Your task to perform on an android device: Show me the alarms in the clock app Image 0: 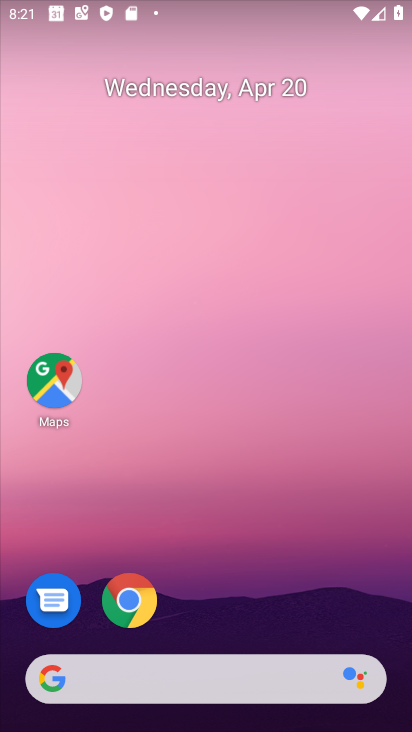
Step 0: drag from (269, 605) to (303, 235)
Your task to perform on an android device: Show me the alarms in the clock app Image 1: 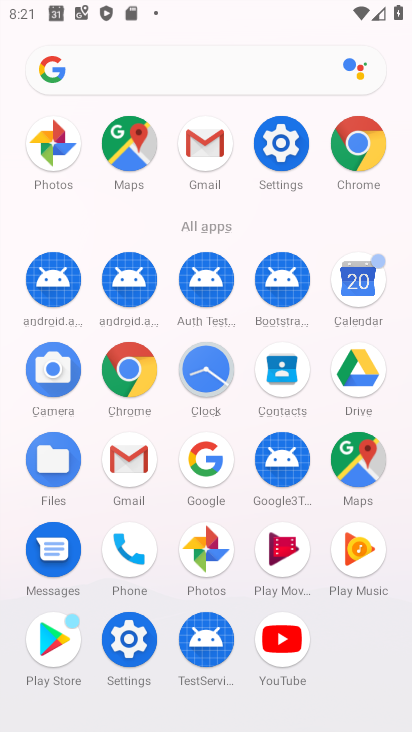
Step 1: click (205, 380)
Your task to perform on an android device: Show me the alarms in the clock app Image 2: 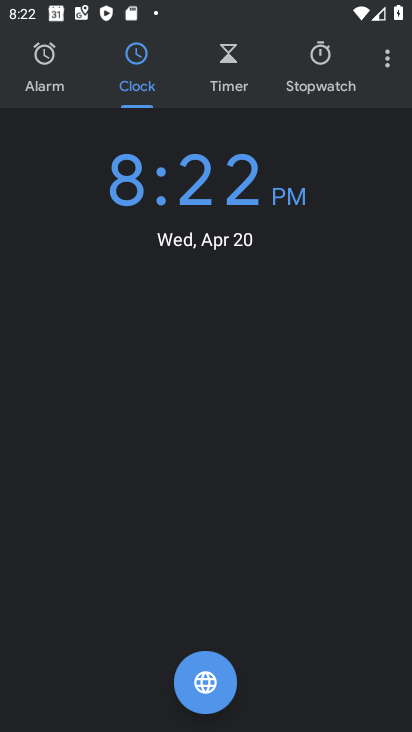
Step 2: click (52, 84)
Your task to perform on an android device: Show me the alarms in the clock app Image 3: 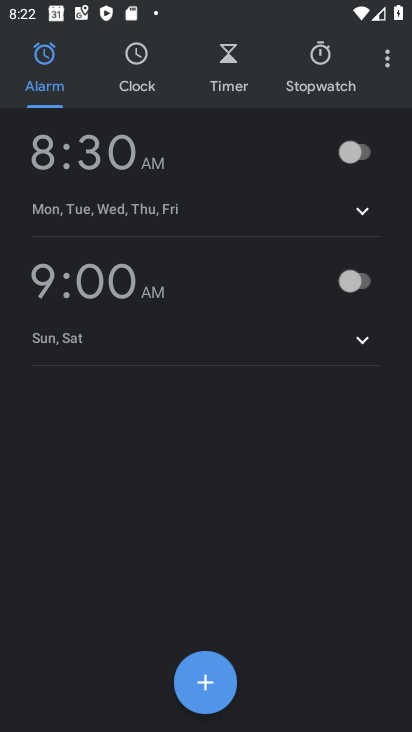
Step 3: task complete